Your task to perform on an android device: turn off translation in the chrome app Image 0: 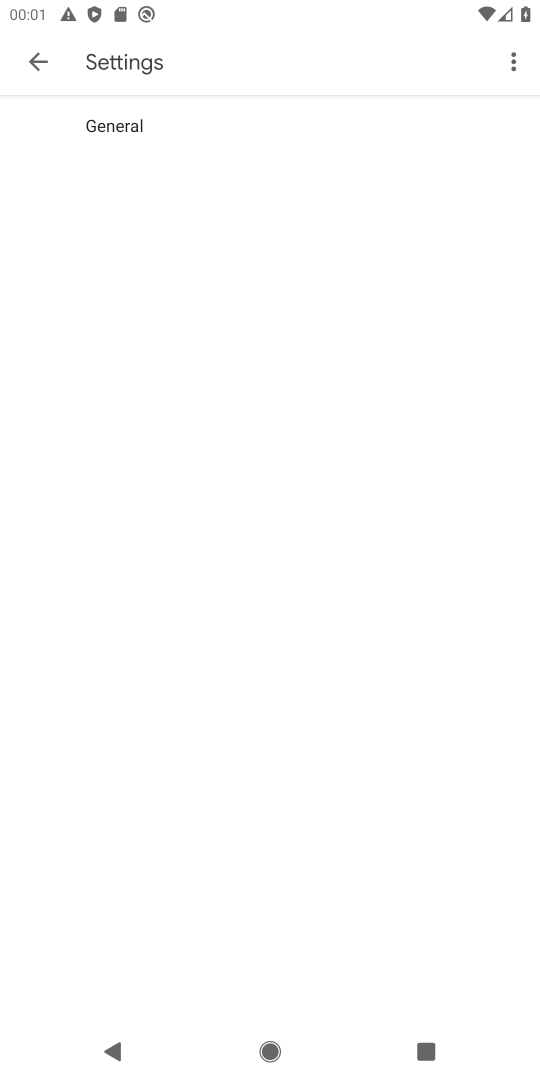
Step 0: press home button
Your task to perform on an android device: turn off translation in the chrome app Image 1: 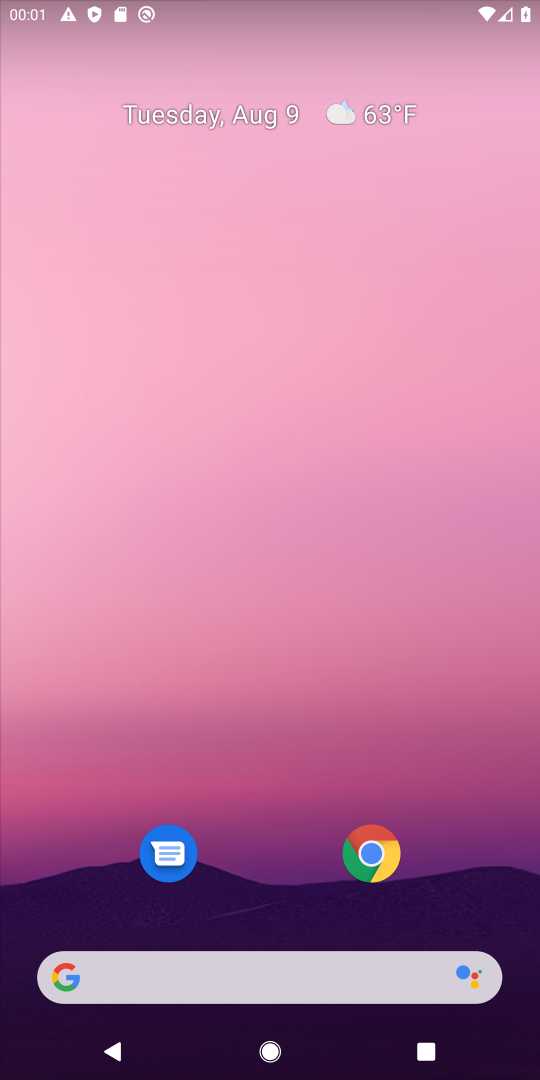
Step 1: click (363, 862)
Your task to perform on an android device: turn off translation in the chrome app Image 2: 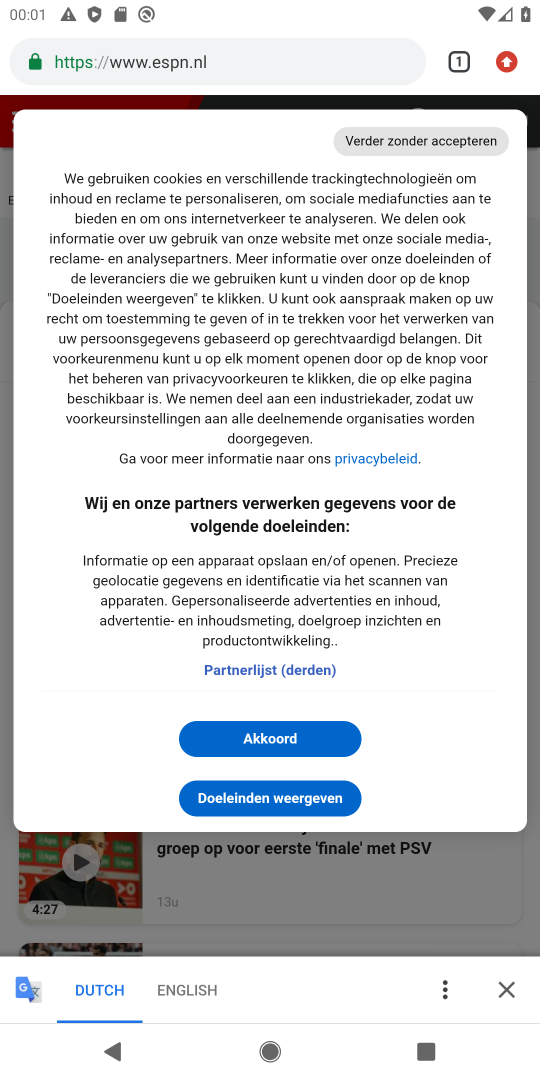
Step 2: click (511, 75)
Your task to perform on an android device: turn off translation in the chrome app Image 3: 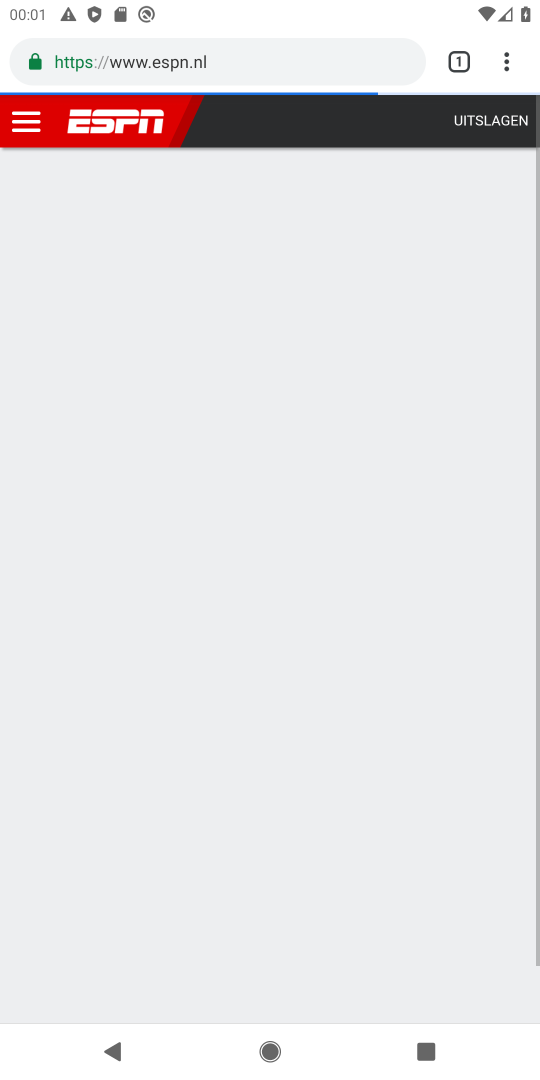
Step 3: click (511, 59)
Your task to perform on an android device: turn off translation in the chrome app Image 4: 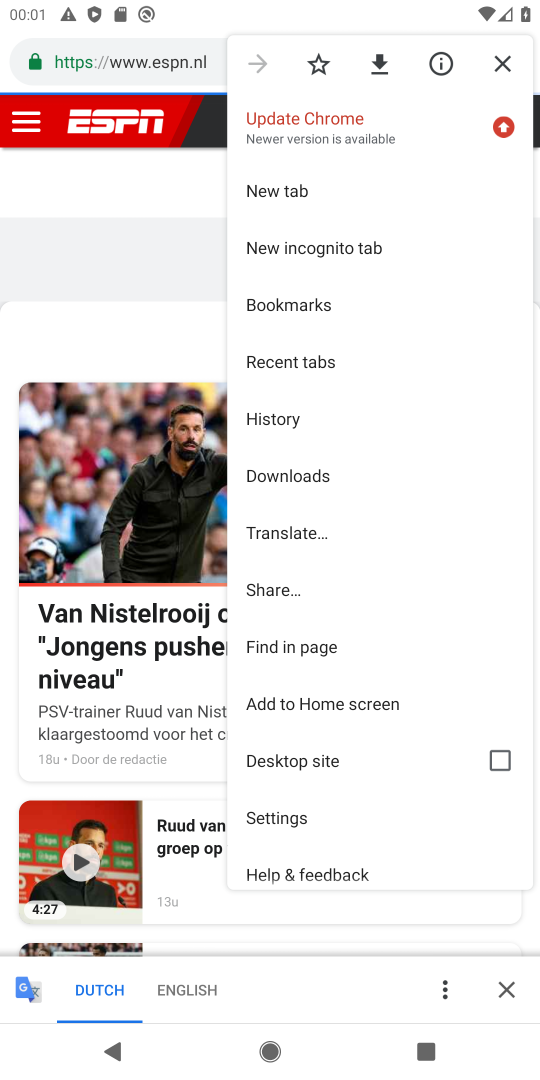
Step 4: click (316, 818)
Your task to perform on an android device: turn off translation in the chrome app Image 5: 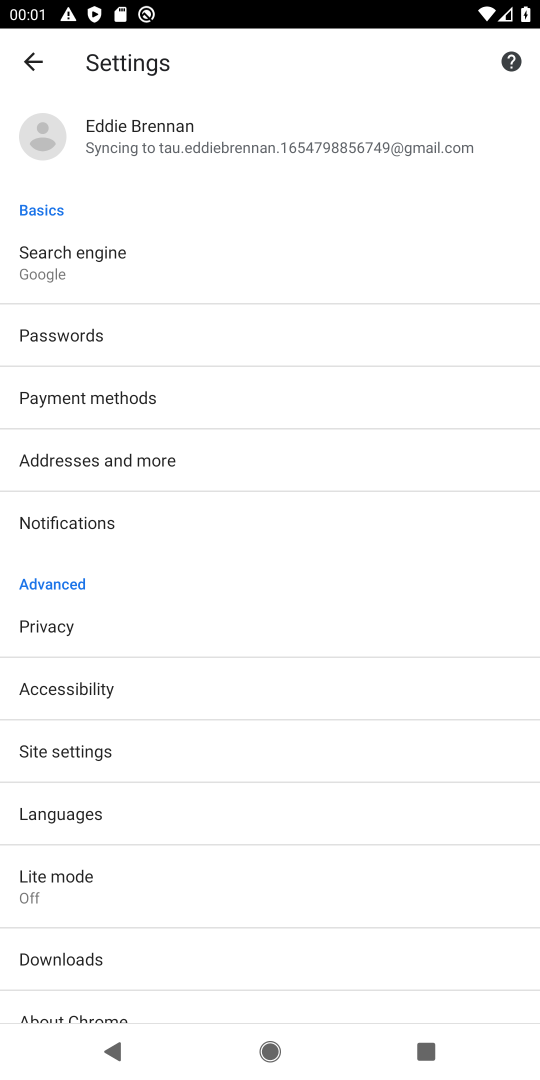
Step 5: click (170, 815)
Your task to perform on an android device: turn off translation in the chrome app Image 6: 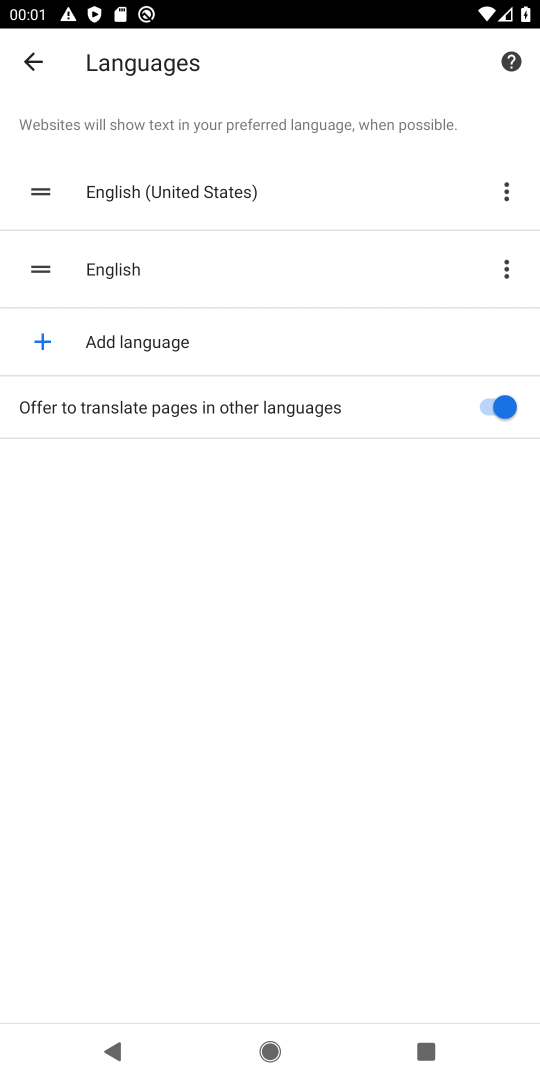
Step 6: click (502, 416)
Your task to perform on an android device: turn off translation in the chrome app Image 7: 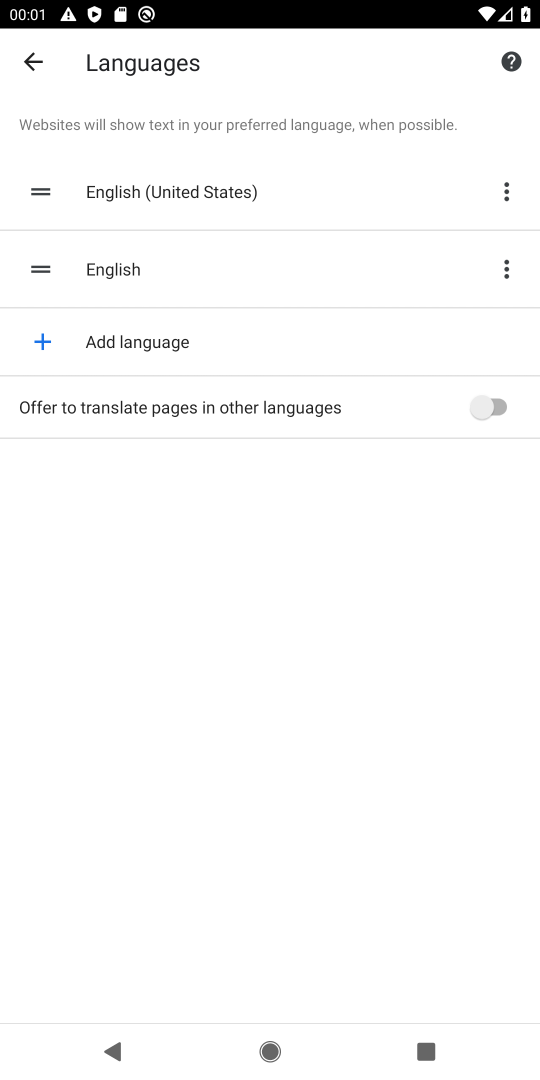
Step 7: task complete